Your task to perform on an android device: Open accessibility settings Image 0: 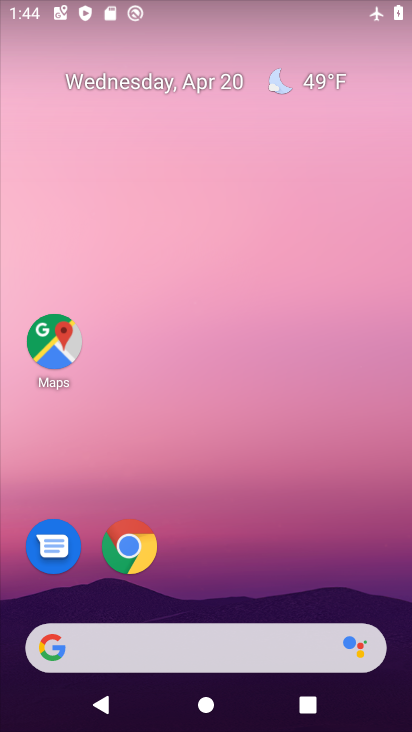
Step 0: drag from (248, 593) to (307, 176)
Your task to perform on an android device: Open accessibility settings Image 1: 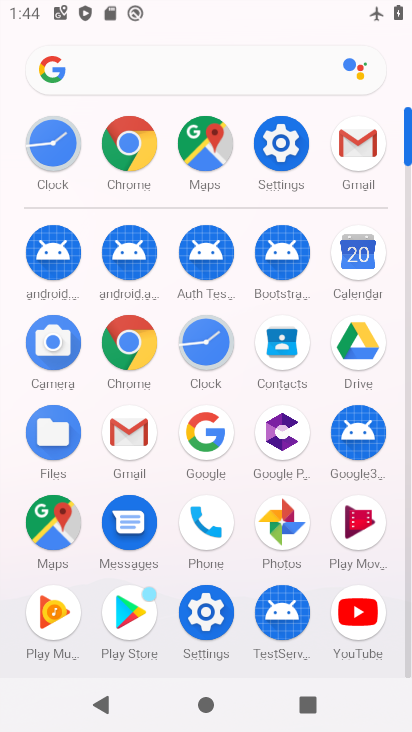
Step 1: click (282, 135)
Your task to perform on an android device: Open accessibility settings Image 2: 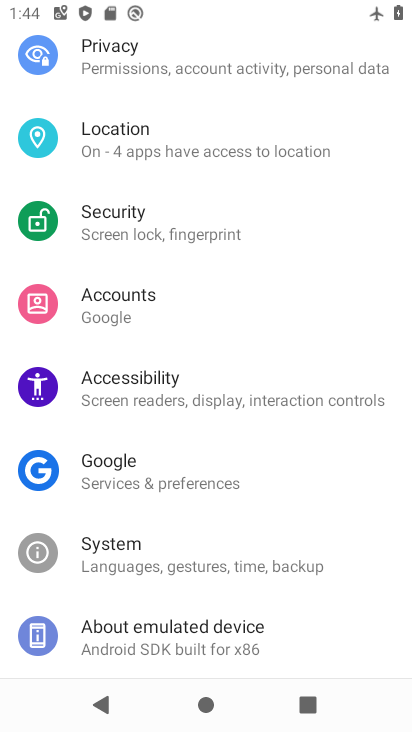
Step 2: click (172, 380)
Your task to perform on an android device: Open accessibility settings Image 3: 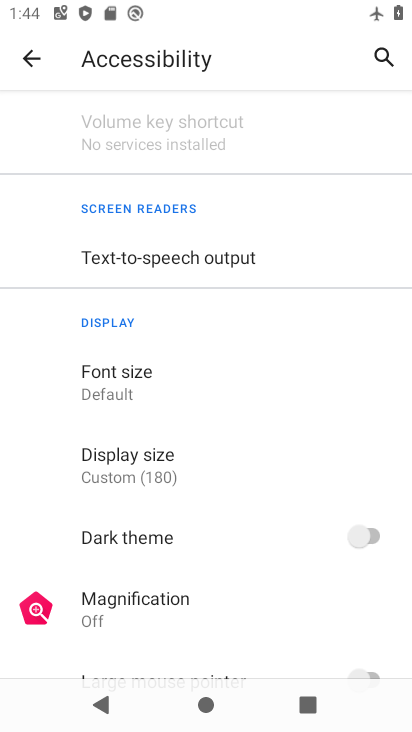
Step 3: task complete